Your task to perform on an android device: turn pop-ups off in chrome Image 0: 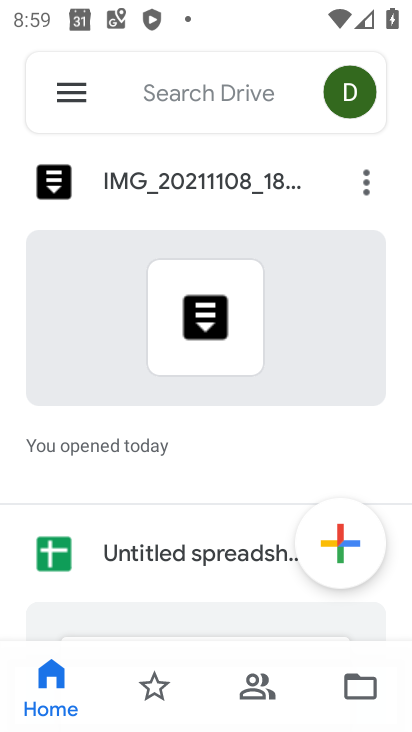
Step 0: press home button
Your task to perform on an android device: turn pop-ups off in chrome Image 1: 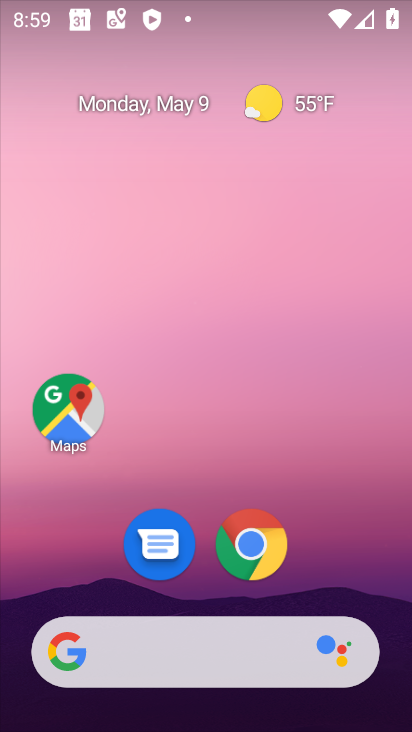
Step 1: click (250, 557)
Your task to perform on an android device: turn pop-ups off in chrome Image 2: 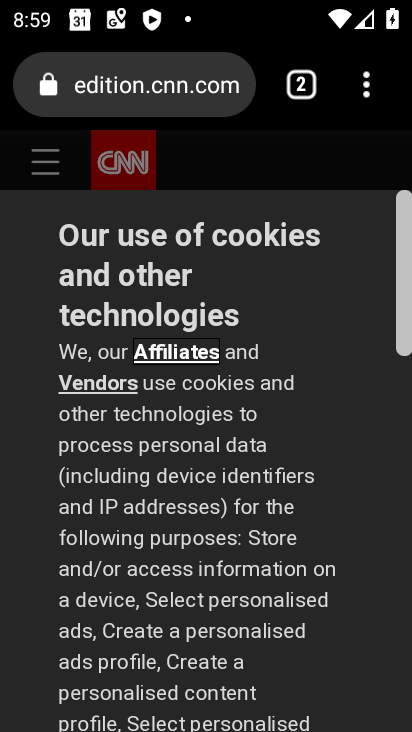
Step 2: drag from (365, 76) to (141, 594)
Your task to perform on an android device: turn pop-ups off in chrome Image 3: 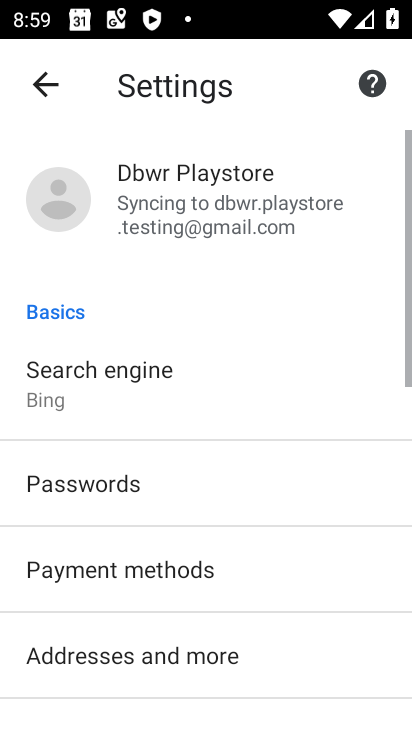
Step 3: drag from (184, 626) to (239, 279)
Your task to perform on an android device: turn pop-ups off in chrome Image 4: 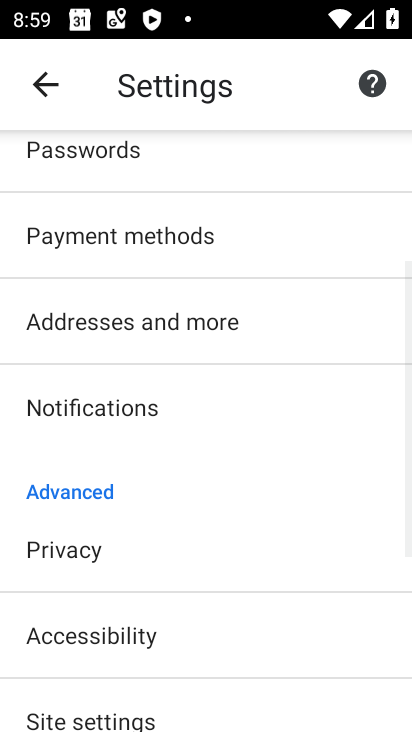
Step 4: drag from (217, 565) to (239, 280)
Your task to perform on an android device: turn pop-ups off in chrome Image 5: 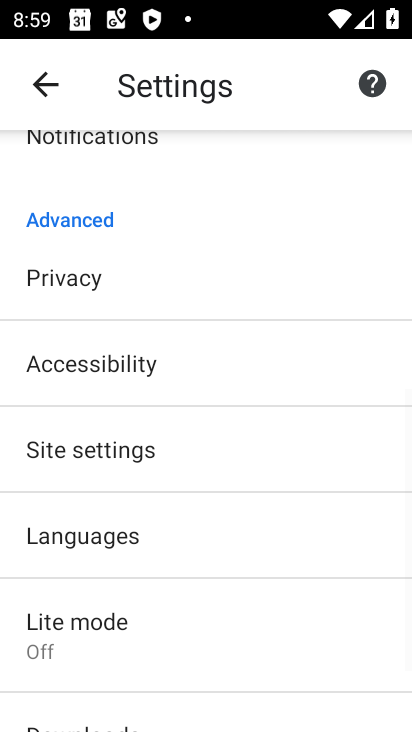
Step 5: click (122, 478)
Your task to perform on an android device: turn pop-ups off in chrome Image 6: 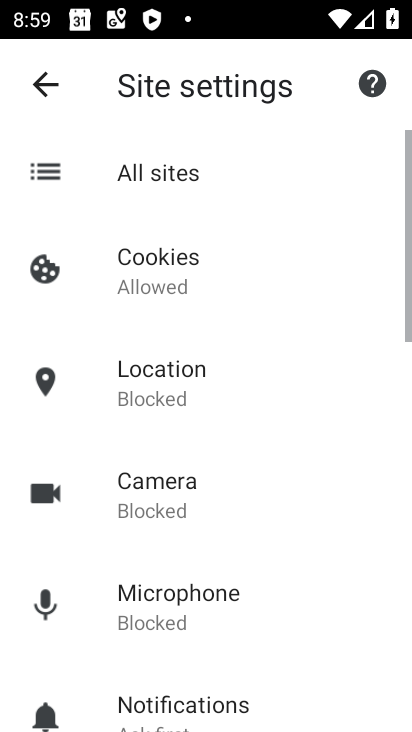
Step 6: drag from (200, 625) to (271, 278)
Your task to perform on an android device: turn pop-ups off in chrome Image 7: 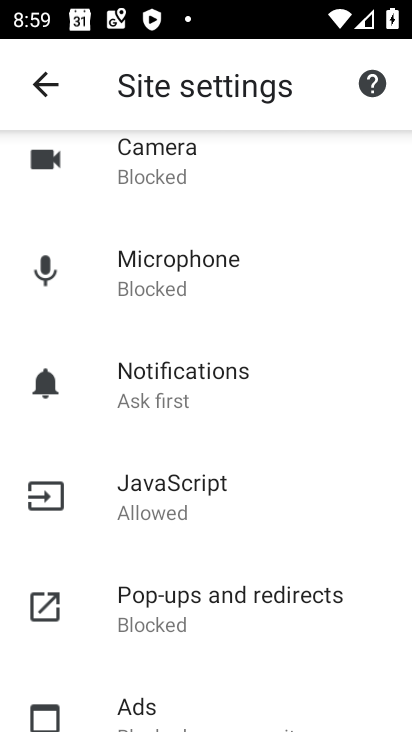
Step 7: click (197, 618)
Your task to perform on an android device: turn pop-ups off in chrome Image 8: 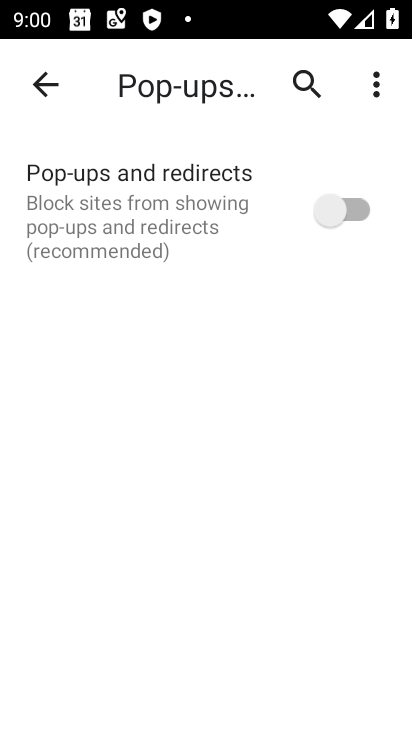
Step 8: task complete